Your task to perform on an android device: see tabs open on other devices in the chrome app Image 0: 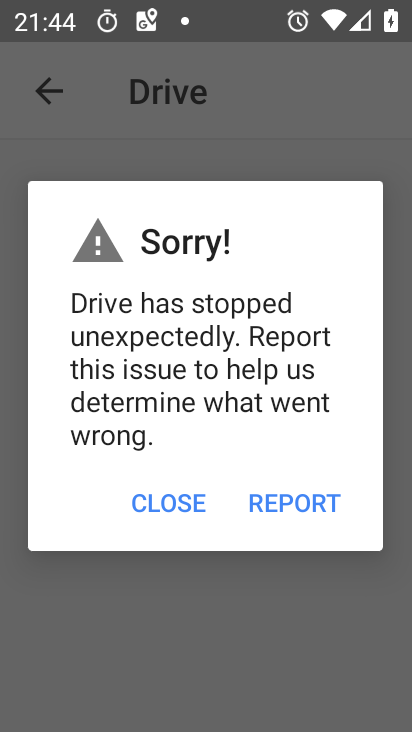
Step 0: press home button
Your task to perform on an android device: see tabs open on other devices in the chrome app Image 1: 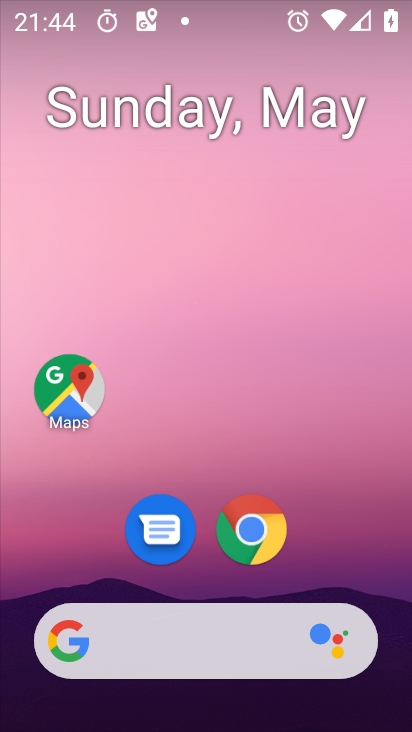
Step 1: click (256, 534)
Your task to perform on an android device: see tabs open on other devices in the chrome app Image 2: 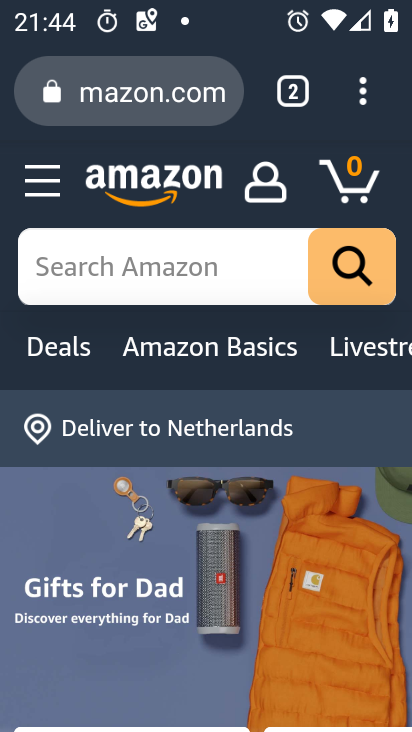
Step 2: click (362, 97)
Your task to perform on an android device: see tabs open on other devices in the chrome app Image 3: 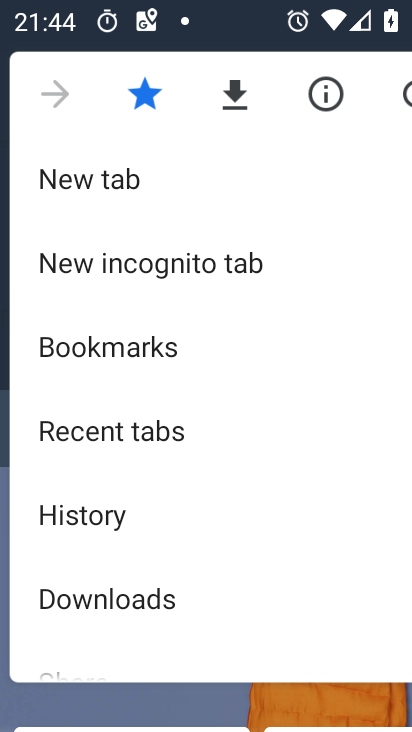
Step 3: click (76, 438)
Your task to perform on an android device: see tabs open on other devices in the chrome app Image 4: 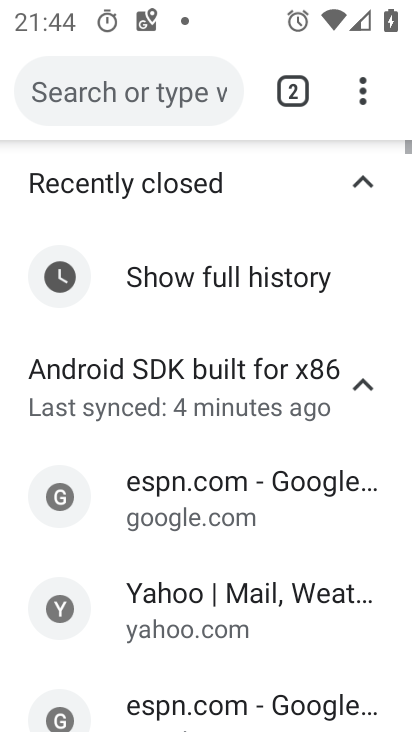
Step 4: task complete